Your task to perform on an android device: Go to sound settings Image 0: 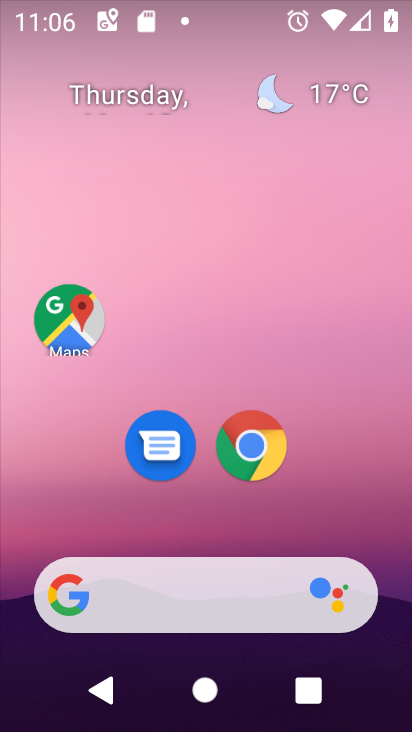
Step 0: drag from (318, 514) to (328, 184)
Your task to perform on an android device: Go to sound settings Image 1: 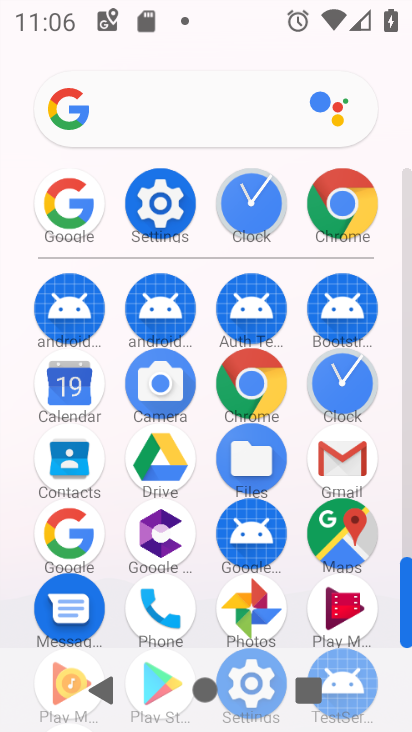
Step 1: click (173, 223)
Your task to perform on an android device: Go to sound settings Image 2: 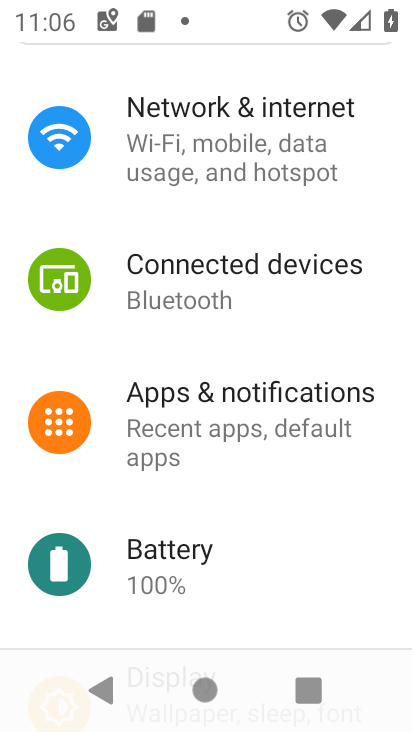
Step 2: drag from (200, 538) to (236, 344)
Your task to perform on an android device: Go to sound settings Image 3: 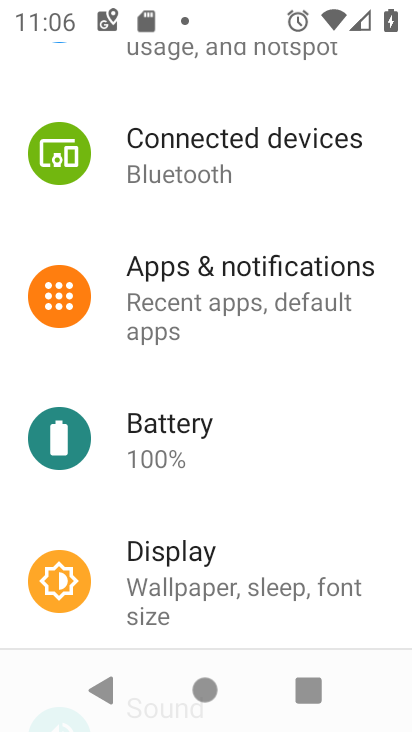
Step 3: drag from (233, 594) to (251, 342)
Your task to perform on an android device: Go to sound settings Image 4: 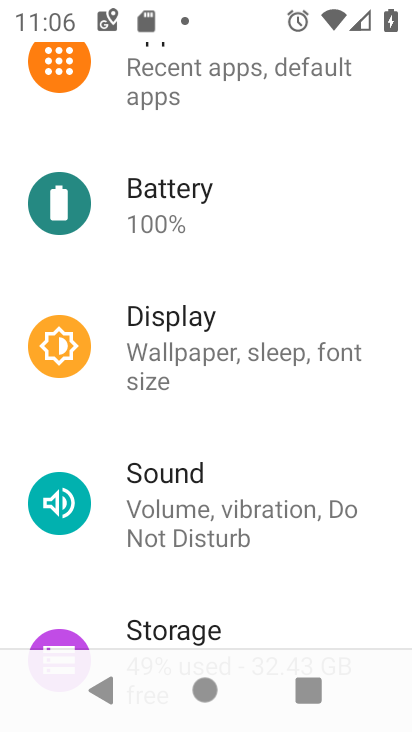
Step 4: click (203, 537)
Your task to perform on an android device: Go to sound settings Image 5: 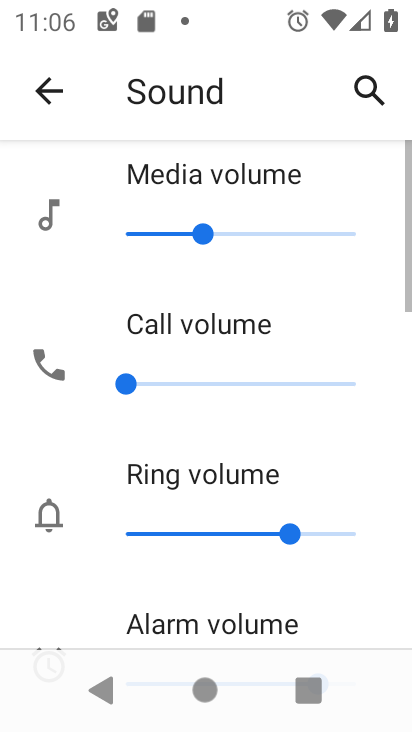
Step 5: task complete